Your task to perform on an android device: turn on location history Image 0: 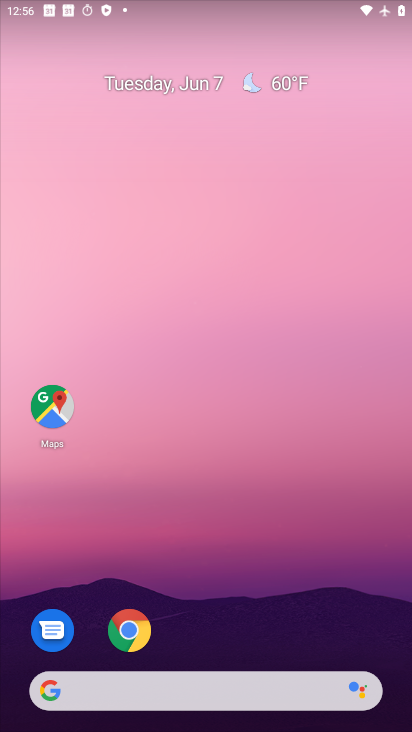
Step 0: drag from (352, 650) to (265, 78)
Your task to perform on an android device: turn on location history Image 1: 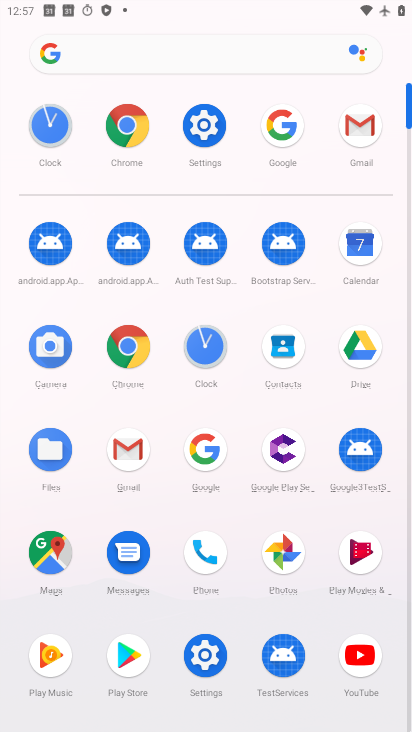
Step 1: click (210, 647)
Your task to perform on an android device: turn on location history Image 2: 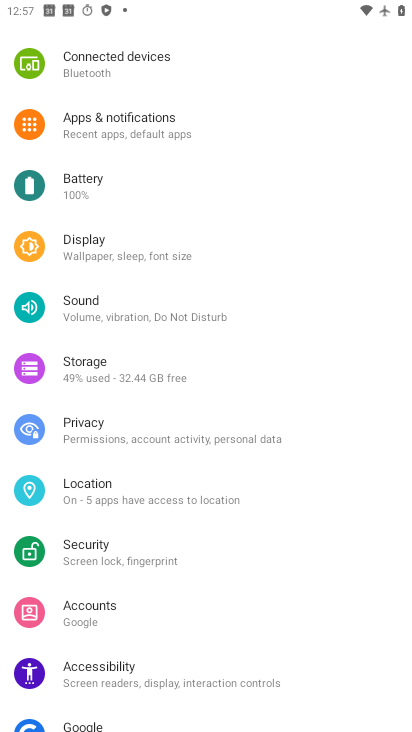
Step 2: click (146, 500)
Your task to perform on an android device: turn on location history Image 3: 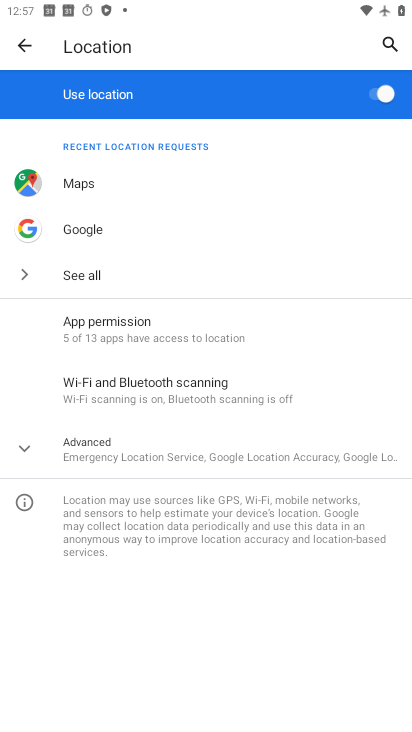
Step 3: click (97, 445)
Your task to perform on an android device: turn on location history Image 4: 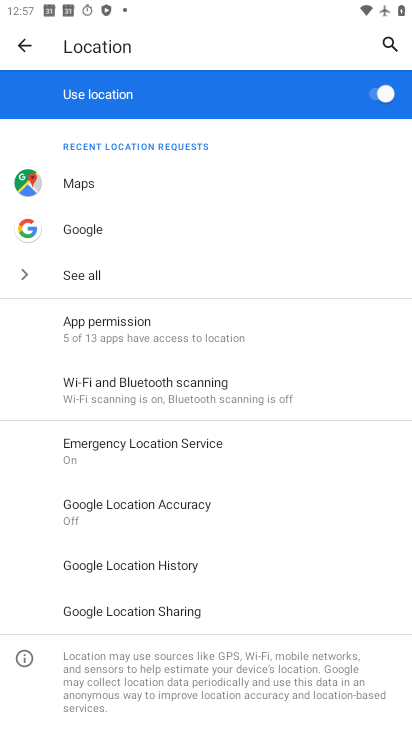
Step 4: click (188, 568)
Your task to perform on an android device: turn on location history Image 5: 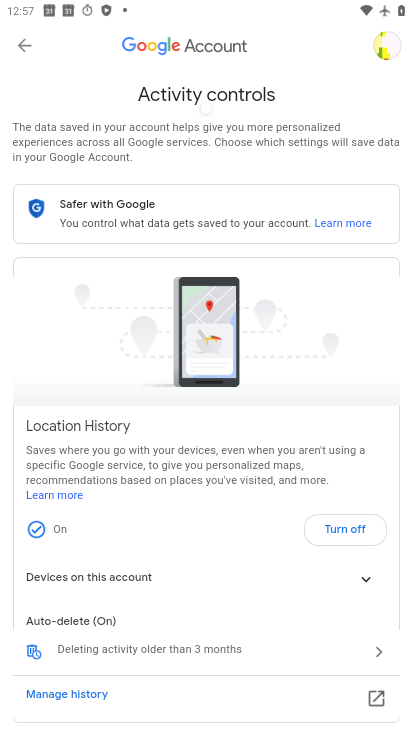
Step 5: click (353, 540)
Your task to perform on an android device: turn on location history Image 6: 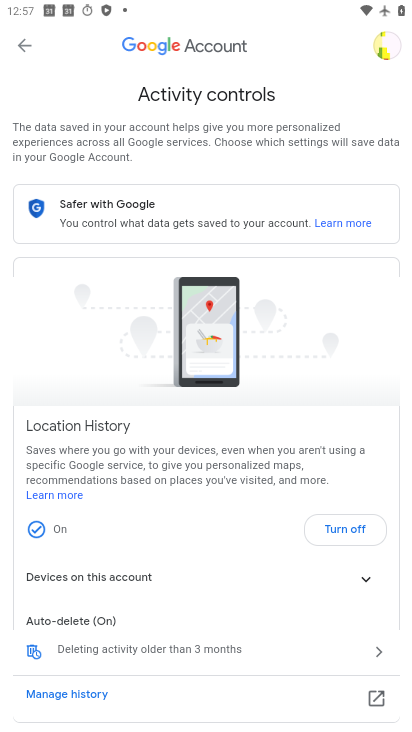
Step 6: click (346, 537)
Your task to perform on an android device: turn on location history Image 7: 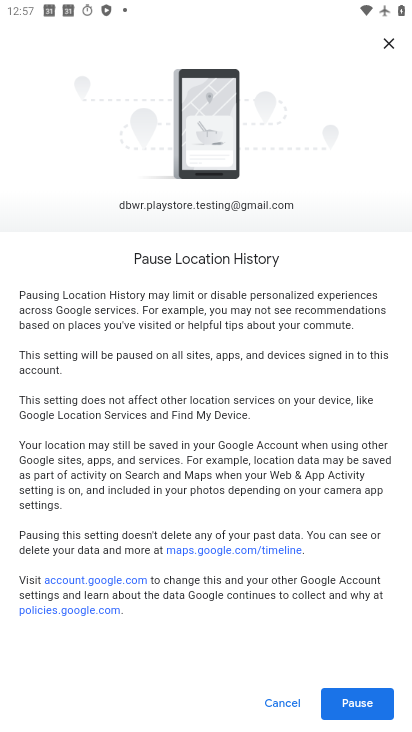
Step 7: task complete